Your task to perform on an android device: delete browsing data in the chrome app Image 0: 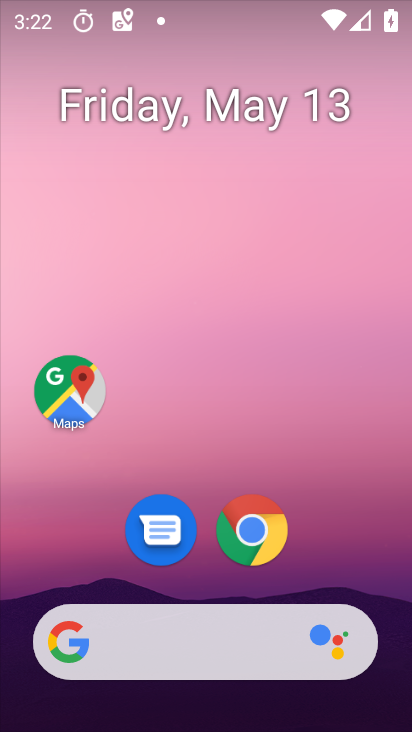
Step 0: drag from (336, 499) to (335, 101)
Your task to perform on an android device: delete browsing data in the chrome app Image 1: 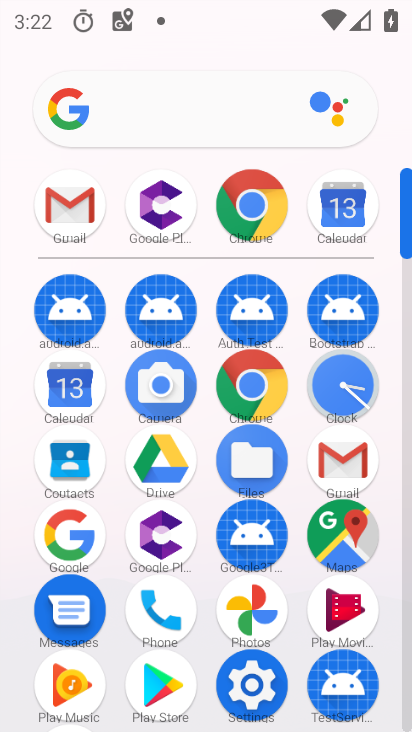
Step 1: click (275, 196)
Your task to perform on an android device: delete browsing data in the chrome app Image 2: 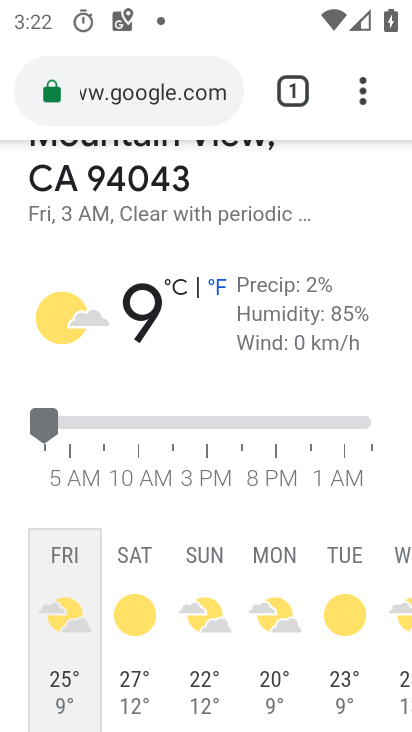
Step 2: click (371, 90)
Your task to perform on an android device: delete browsing data in the chrome app Image 3: 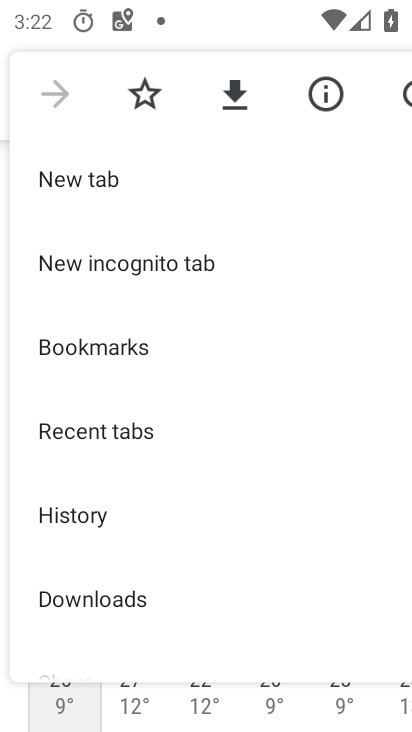
Step 3: drag from (257, 604) to (282, 155)
Your task to perform on an android device: delete browsing data in the chrome app Image 4: 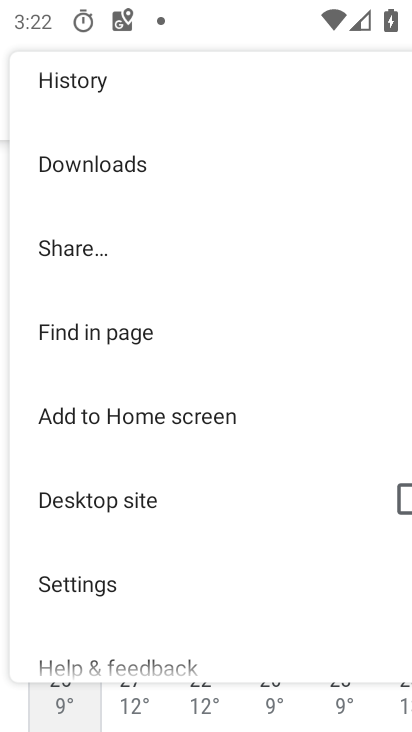
Step 4: click (282, 155)
Your task to perform on an android device: delete browsing data in the chrome app Image 5: 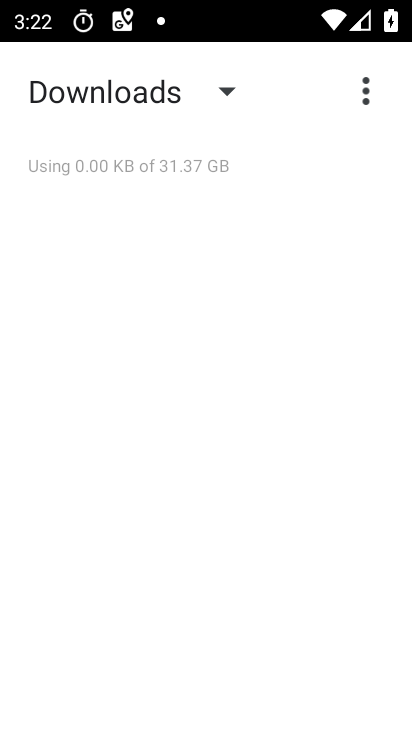
Step 5: click (85, 99)
Your task to perform on an android device: delete browsing data in the chrome app Image 6: 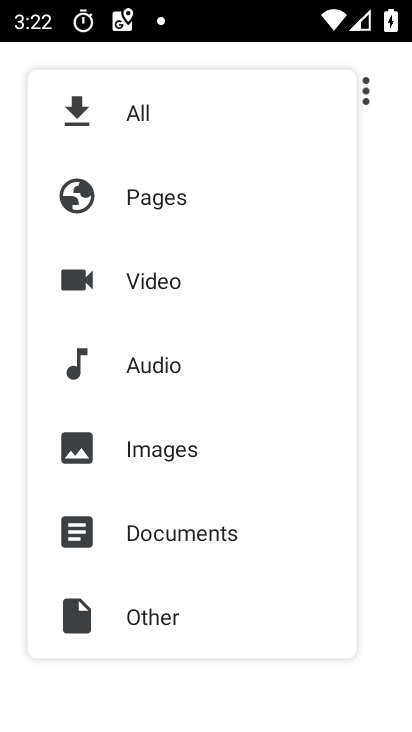
Step 6: press back button
Your task to perform on an android device: delete browsing data in the chrome app Image 7: 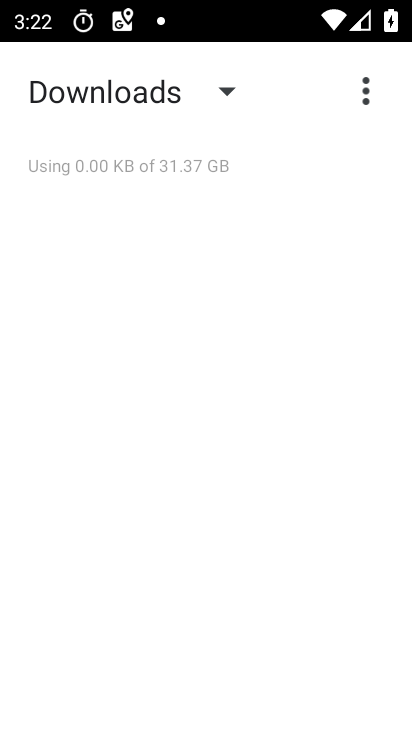
Step 7: press back button
Your task to perform on an android device: delete browsing data in the chrome app Image 8: 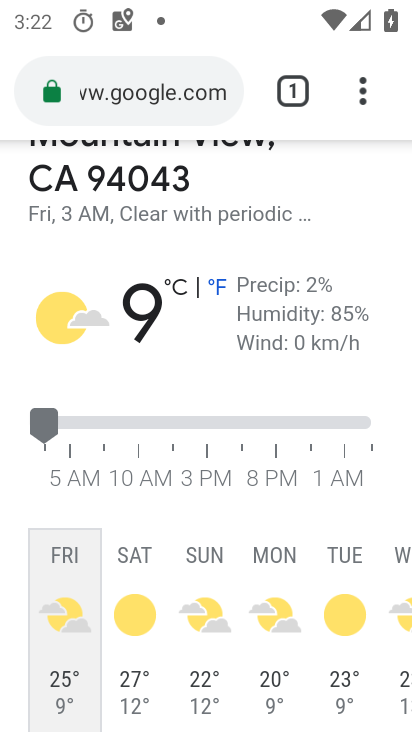
Step 8: click (365, 102)
Your task to perform on an android device: delete browsing data in the chrome app Image 9: 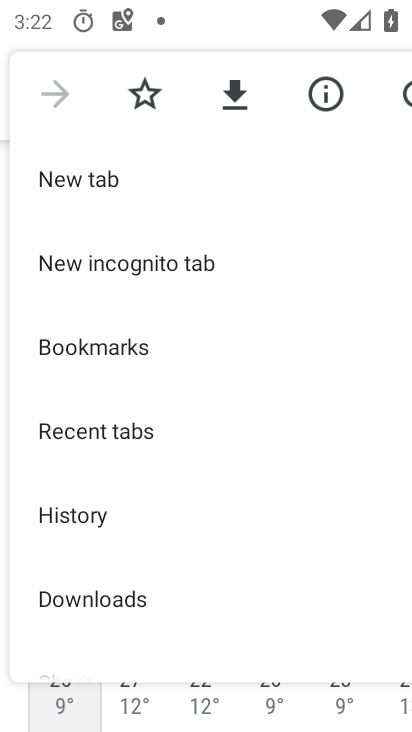
Step 9: drag from (203, 652) to (224, 419)
Your task to perform on an android device: delete browsing data in the chrome app Image 10: 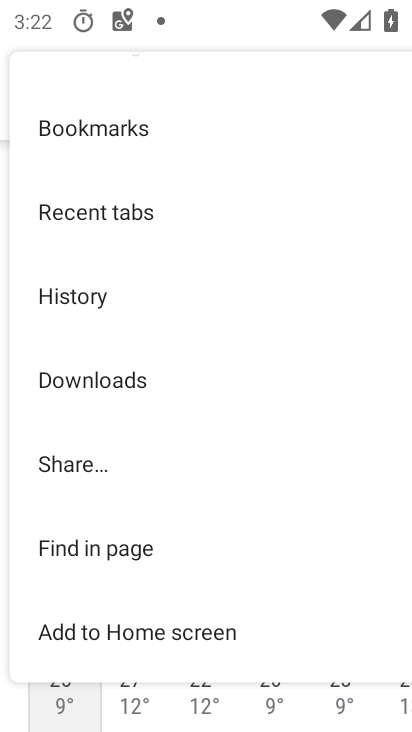
Step 10: click (115, 300)
Your task to perform on an android device: delete browsing data in the chrome app Image 11: 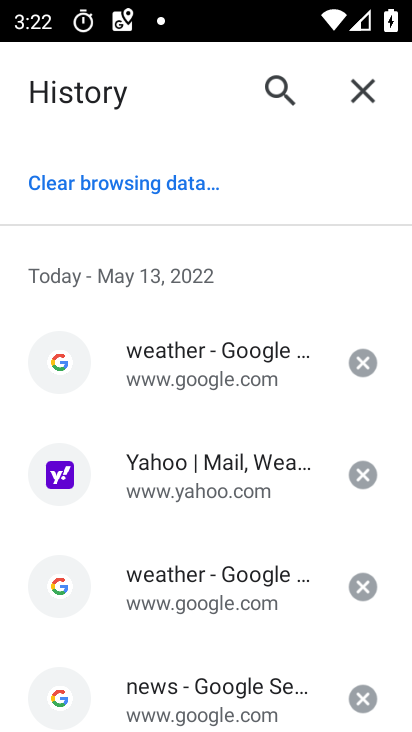
Step 11: click (189, 186)
Your task to perform on an android device: delete browsing data in the chrome app Image 12: 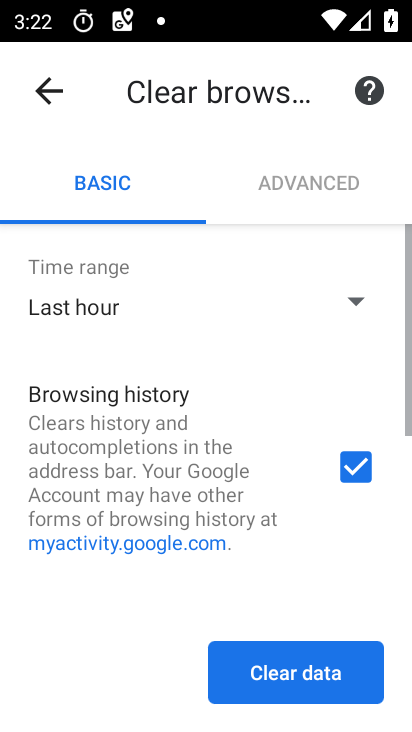
Step 12: click (293, 693)
Your task to perform on an android device: delete browsing data in the chrome app Image 13: 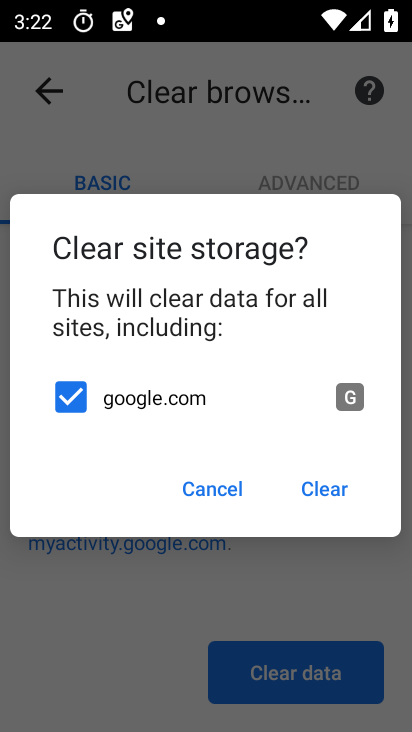
Step 13: click (318, 486)
Your task to perform on an android device: delete browsing data in the chrome app Image 14: 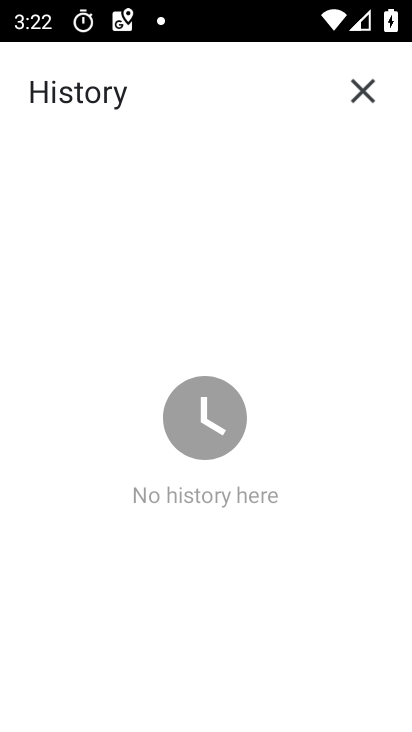
Step 14: task complete